Your task to perform on an android device: turn off priority inbox in the gmail app Image 0: 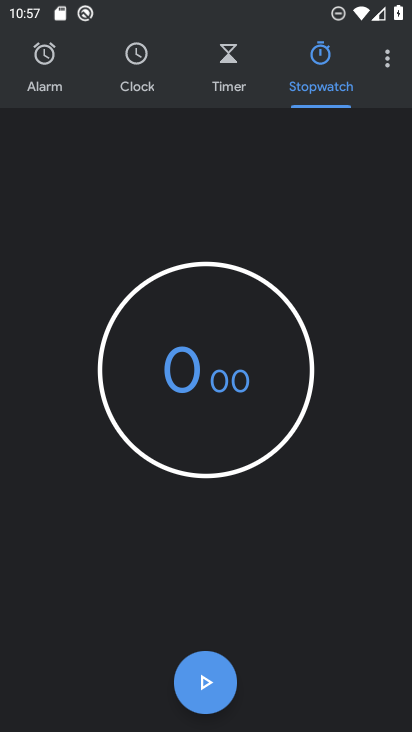
Step 0: press back button
Your task to perform on an android device: turn off priority inbox in the gmail app Image 1: 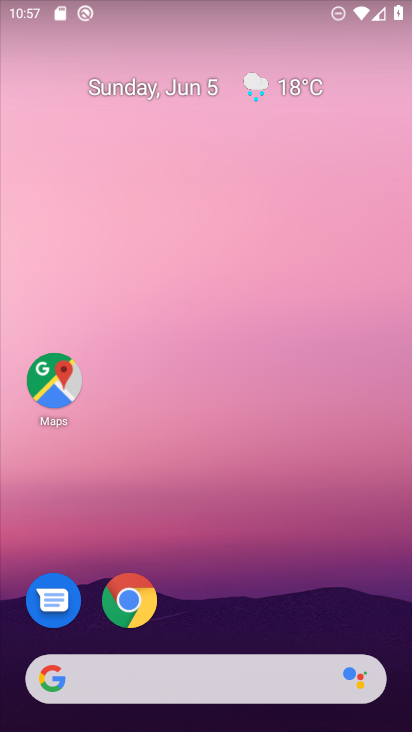
Step 1: drag from (262, 613) to (233, 49)
Your task to perform on an android device: turn off priority inbox in the gmail app Image 2: 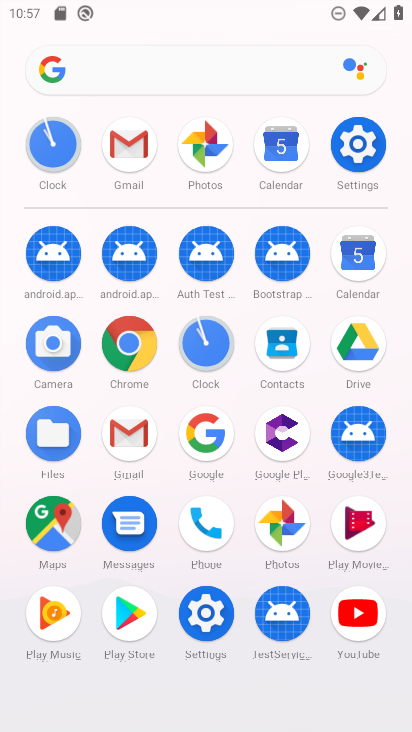
Step 2: click (132, 131)
Your task to perform on an android device: turn off priority inbox in the gmail app Image 3: 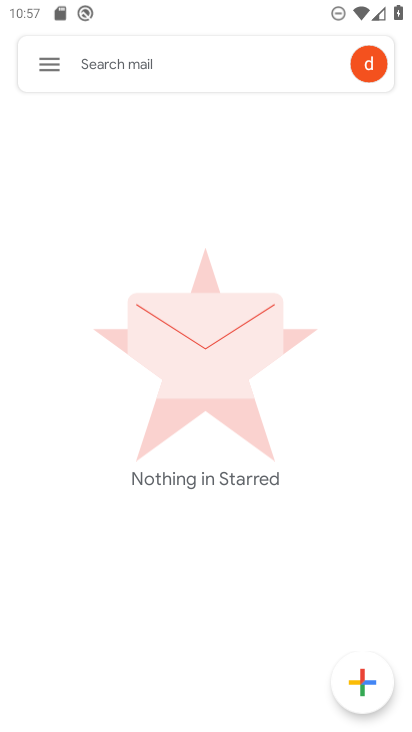
Step 3: click (45, 53)
Your task to perform on an android device: turn off priority inbox in the gmail app Image 4: 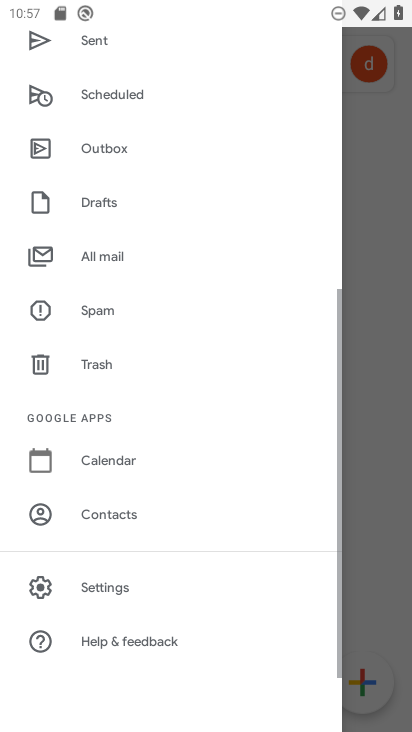
Step 4: drag from (202, 214) to (288, 682)
Your task to perform on an android device: turn off priority inbox in the gmail app Image 5: 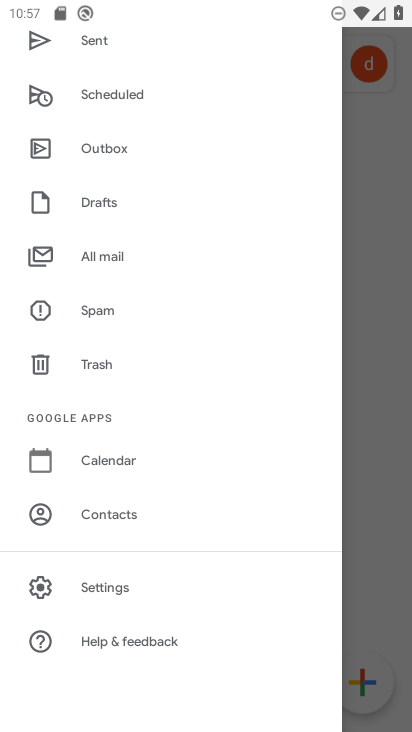
Step 5: click (138, 584)
Your task to perform on an android device: turn off priority inbox in the gmail app Image 6: 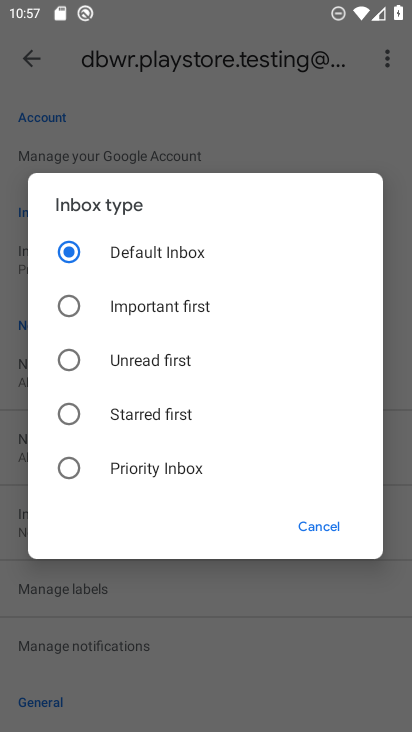
Step 6: task complete